Your task to perform on an android device: Open the map Image 0: 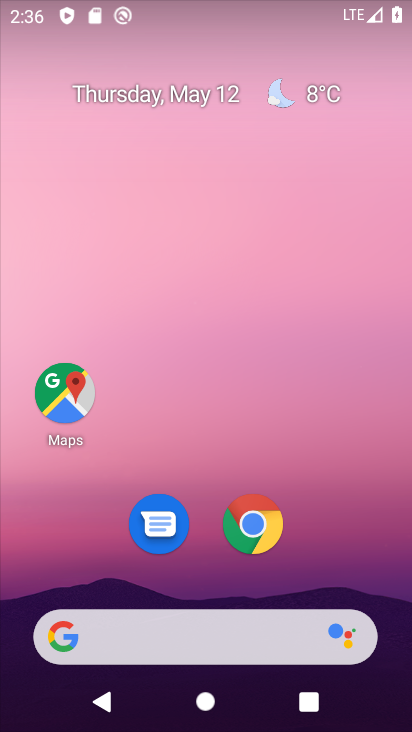
Step 0: click (73, 382)
Your task to perform on an android device: Open the map Image 1: 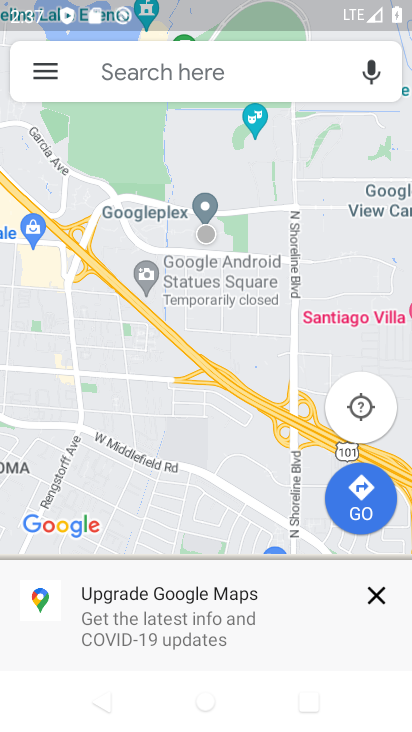
Step 1: task complete